Your task to perform on an android device: Open the stopwatch Image 0: 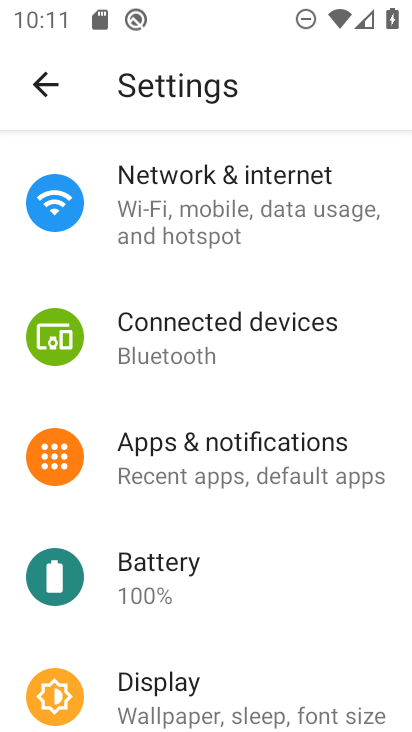
Step 0: press home button
Your task to perform on an android device: Open the stopwatch Image 1: 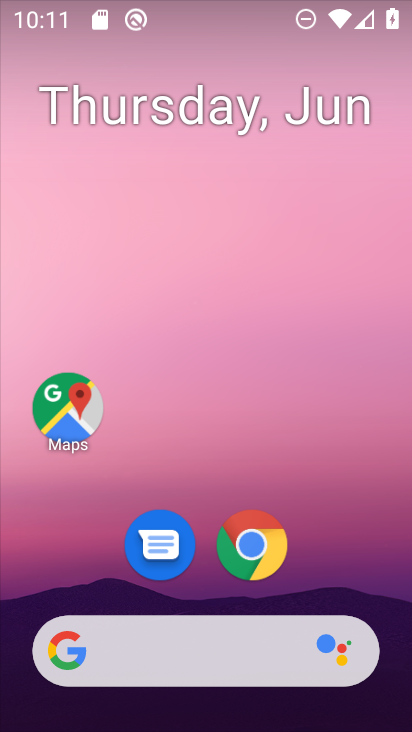
Step 1: drag from (195, 579) to (110, 8)
Your task to perform on an android device: Open the stopwatch Image 2: 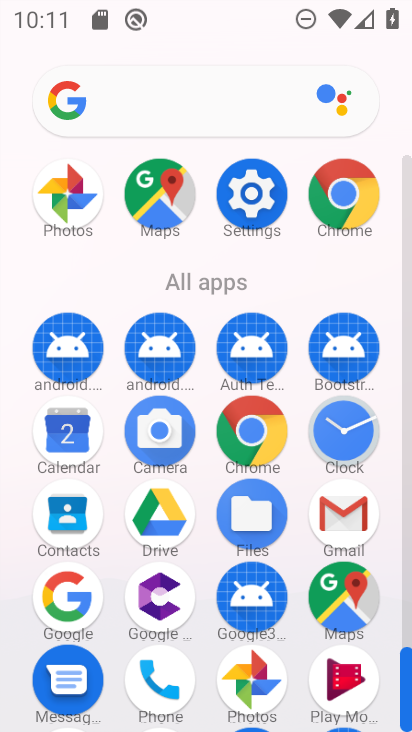
Step 2: click (348, 415)
Your task to perform on an android device: Open the stopwatch Image 3: 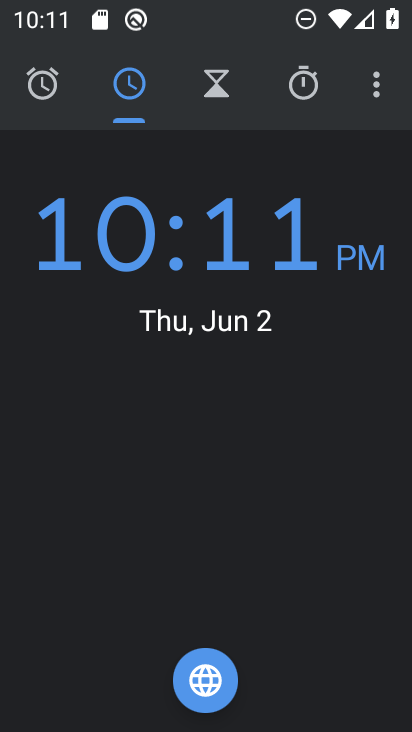
Step 3: click (316, 104)
Your task to perform on an android device: Open the stopwatch Image 4: 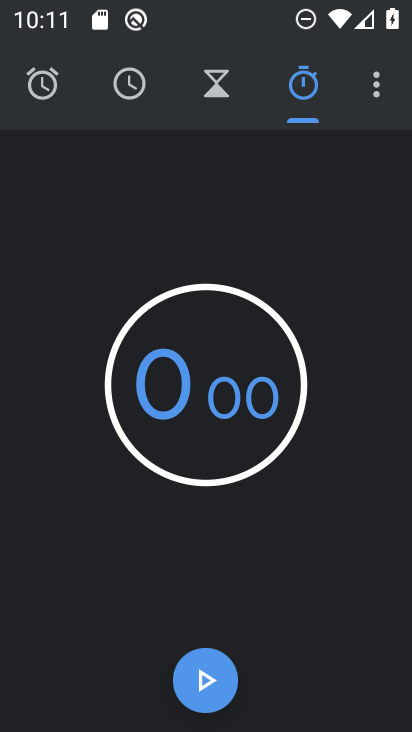
Step 4: click (204, 679)
Your task to perform on an android device: Open the stopwatch Image 5: 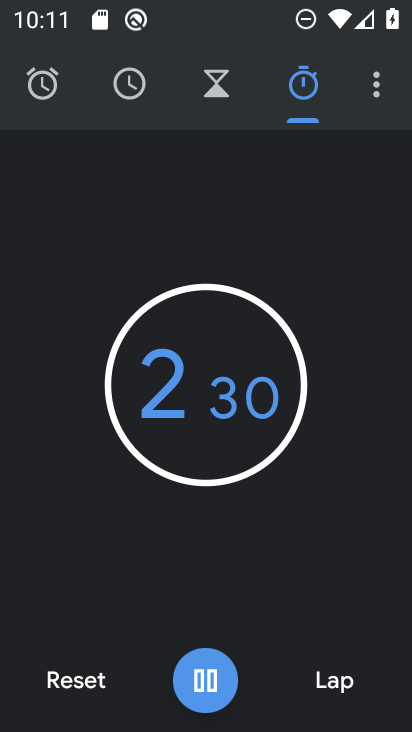
Step 5: task complete